Your task to perform on an android device: open wifi settings Image 0: 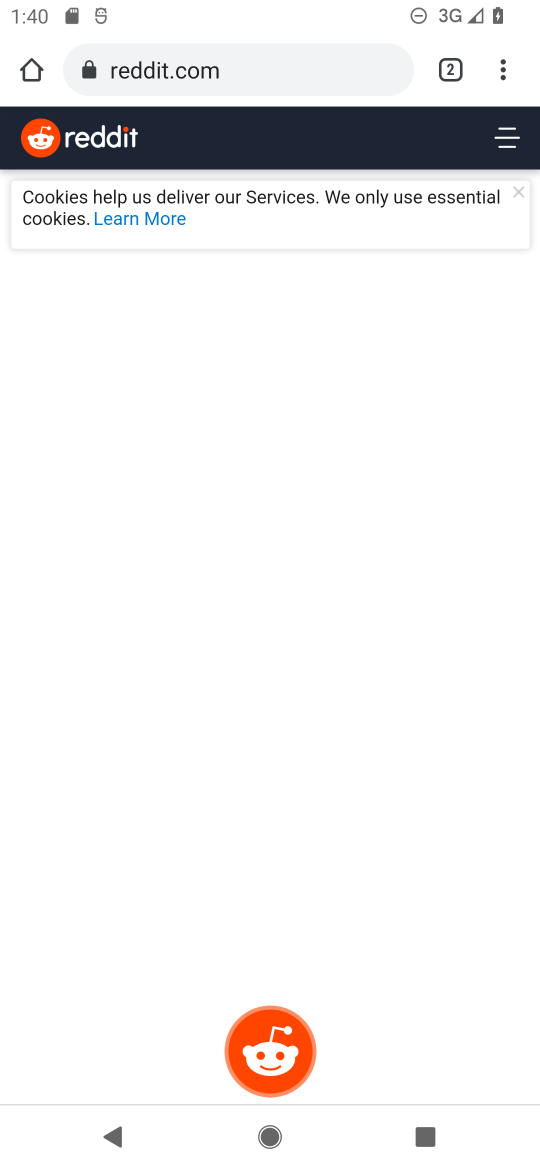
Step 0: press home button
Your task to perform on an android device: open wifi settings Image 1: 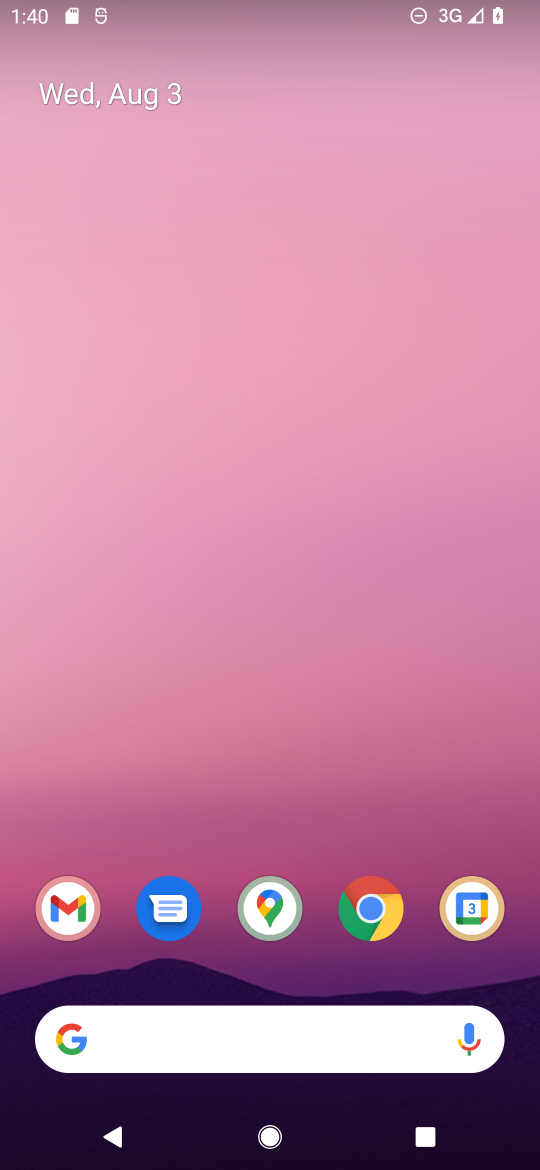
Step 1: drag from (263, 982) to (238, 51)
Your task to perform on an android device: open wifi settings Image 2: 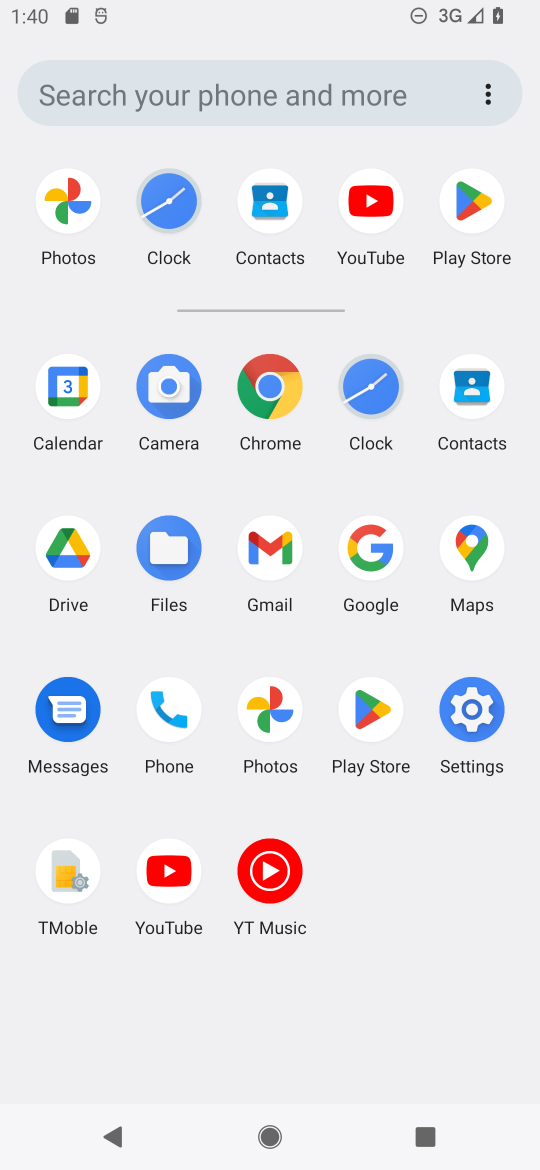
Step 2: click (476, 707)
Your task to perform on an android device: open wifi settings Image 3: 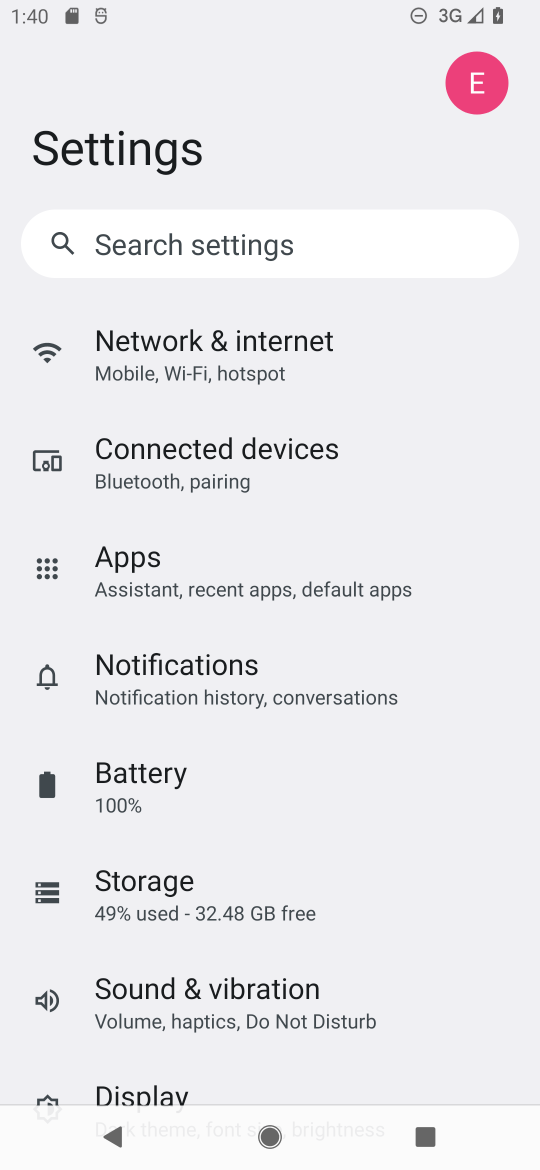
Step 3: click (214, 348)
Your task to perform on an android device: open wifi settings Image 4: 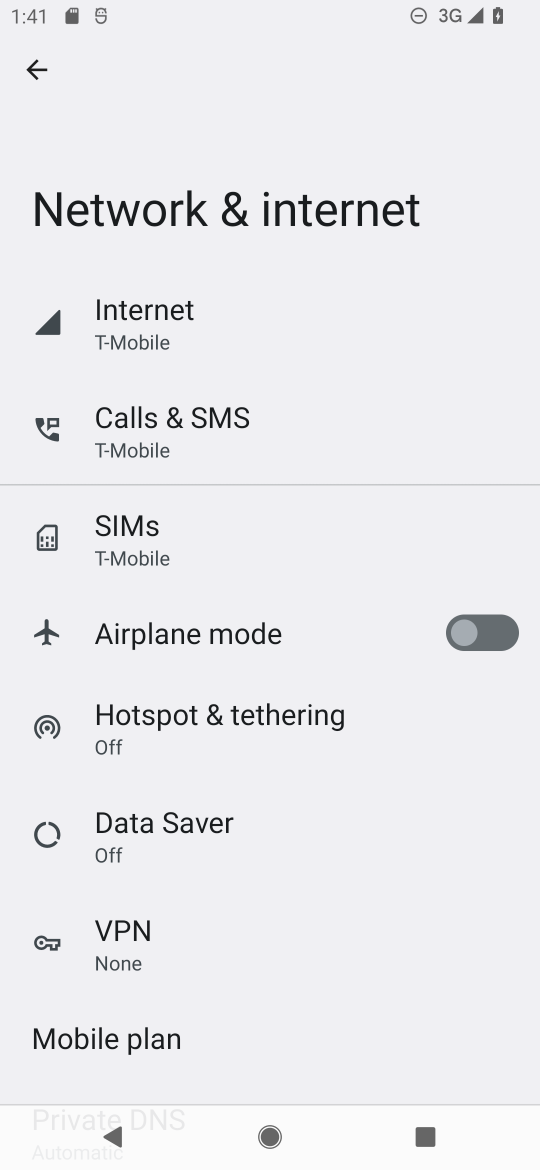
Step 4: click (148, 333)
Your task to perform on an android device: open wifi settings Image 5: 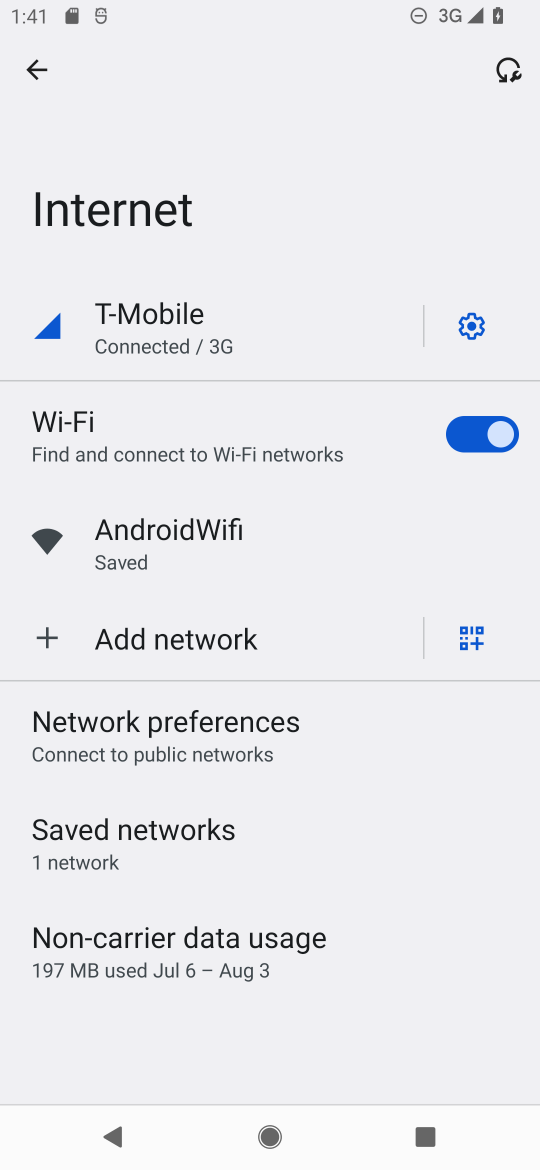
Step 5: click (182, 454)
Your task to perform on an android device: open wifi settings Image 6: 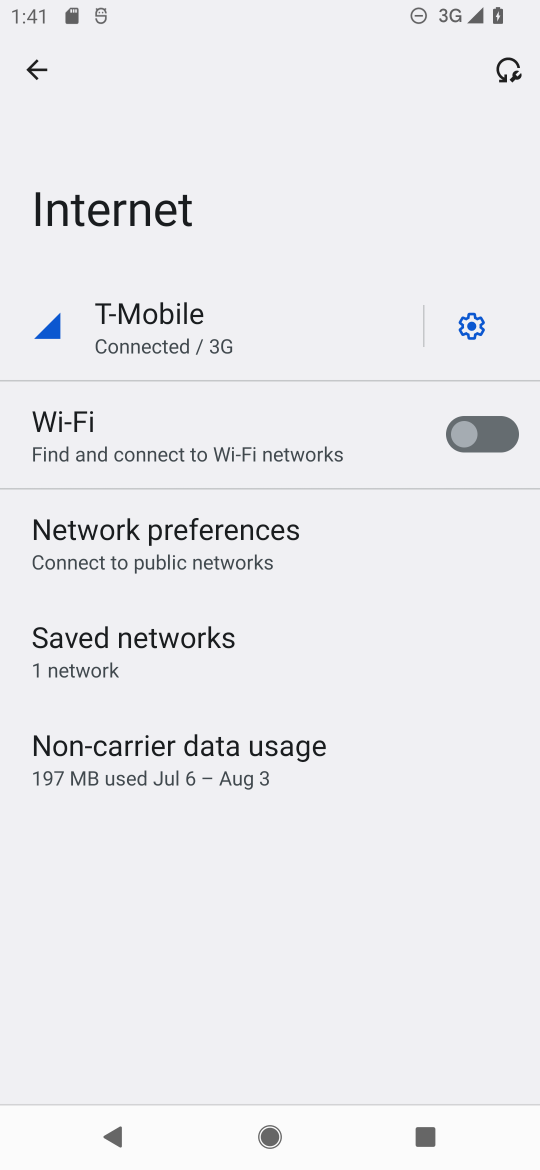
Step 6: click (182, 454)
Your task to perform on an android device: open wifi settings Image 7: 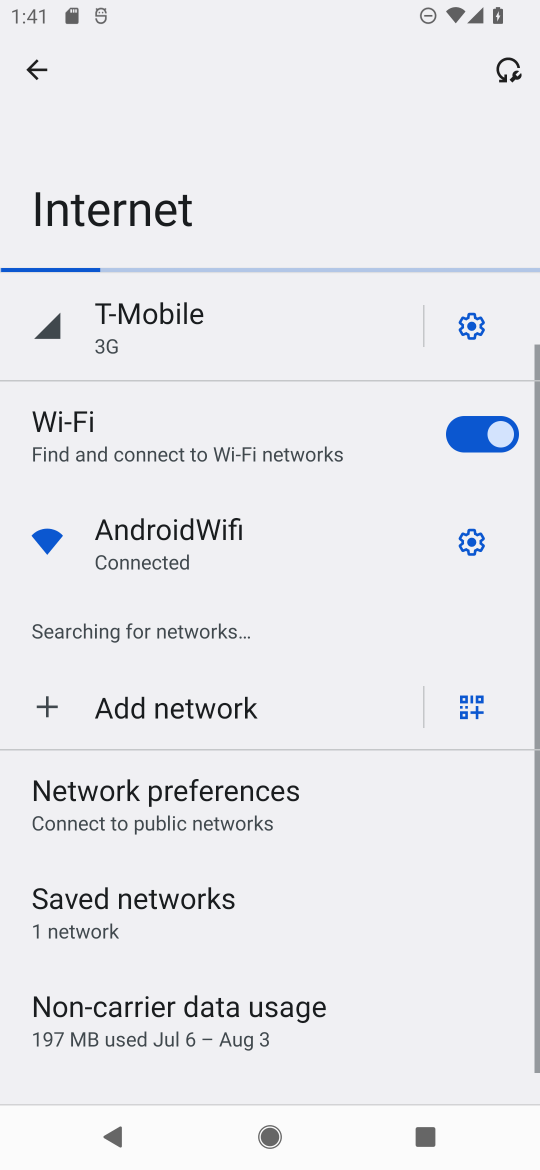
Step 7: task complete